Your task to perform on an android device: Open Amazon Image 0: 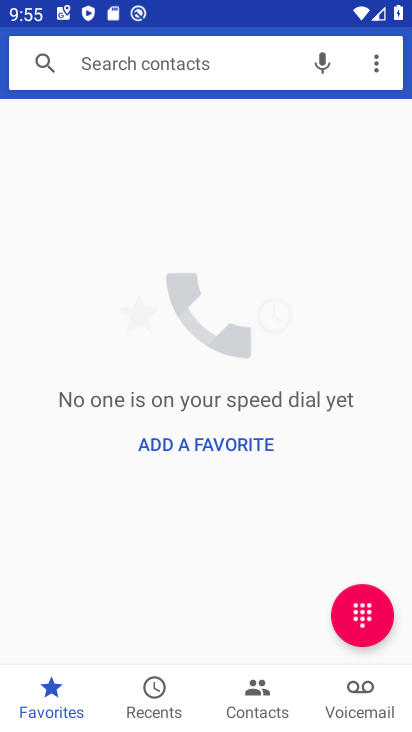
Step 0: press home button
Your task to perform on an android device: Open Amazon Image 1: 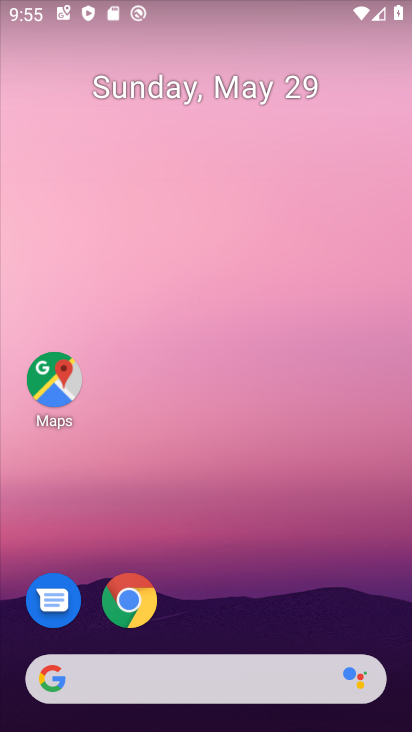
Step 1: click (129, 605)
Your task to perform on an android device: Open Amazon Image 2: 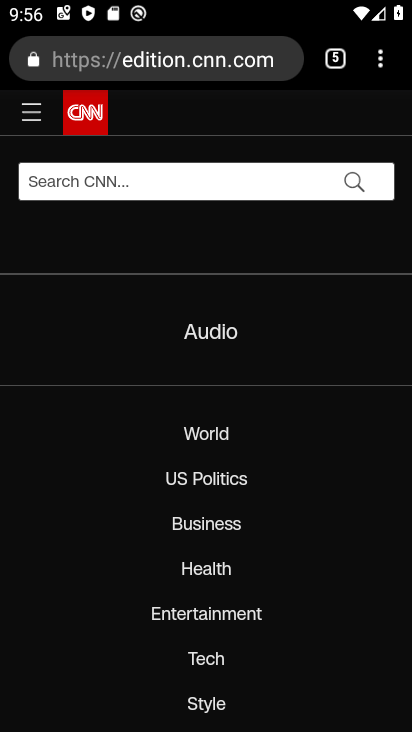
Step 2: click (385, 68)
Your task to perform on an android device: Open Amazon Image 3: 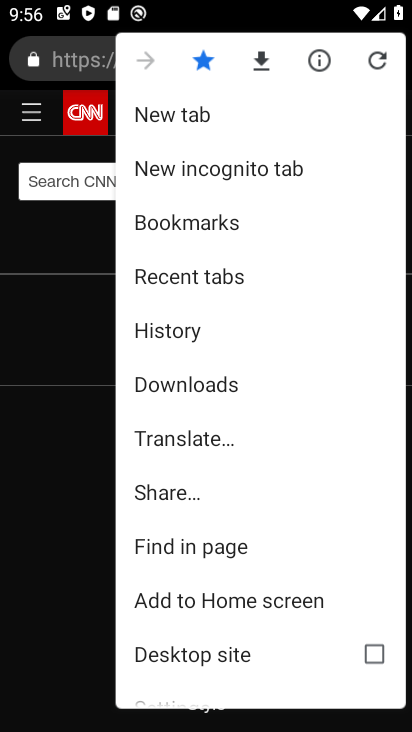
Step 3: click (191, 114)
Your task to perform on an android device: Open Amazon Image 4: 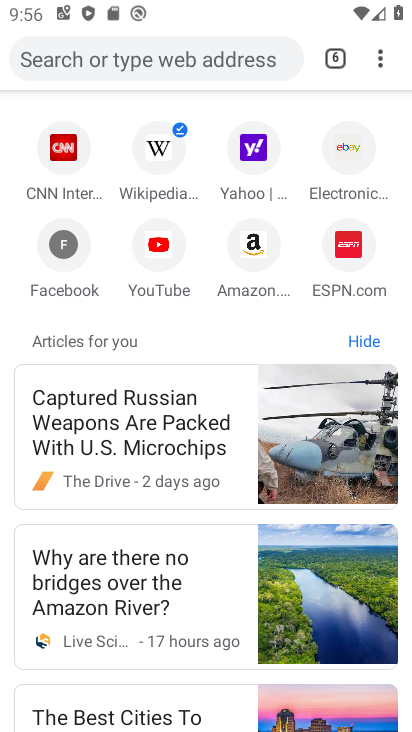
Step 4: click (258, 241)
Your task to perform on an android device: Open Amazon Image 5: 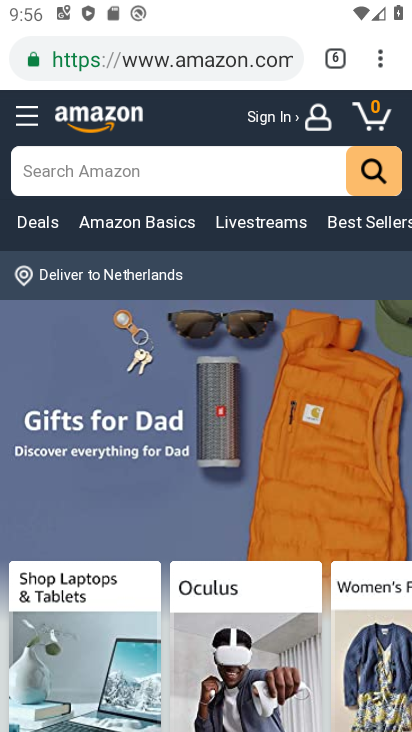
Step 5: task complete